Your task to perform on an android device: Open settings on Google Maps Image 0: 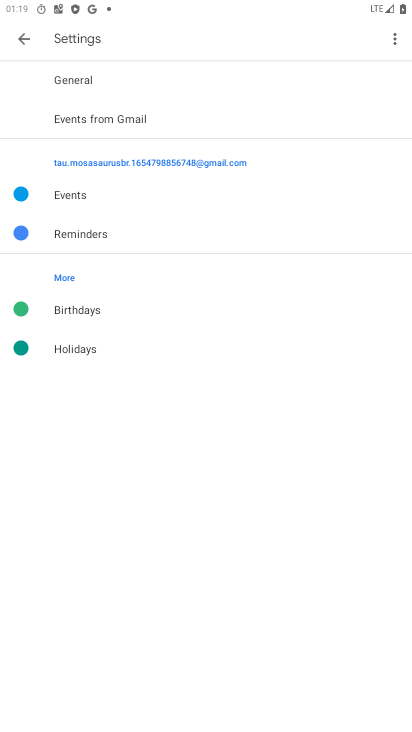
Step 0: press home button
Your task to perform on an android device: Open settings on Google Maps Image 1: 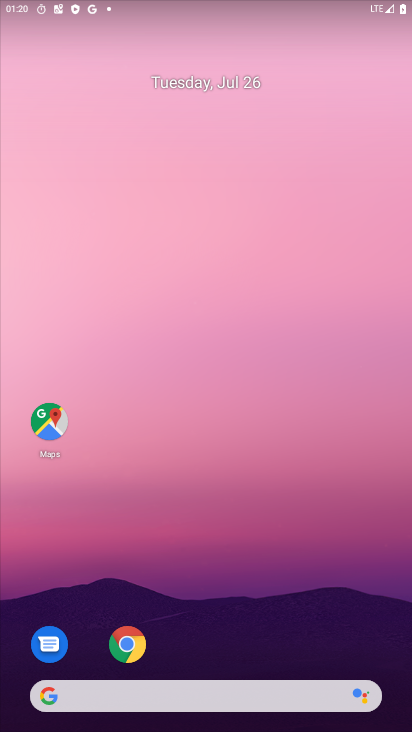
Step 1: click (39, 422)
Your task to perform on an android device: Open settings on Google Maps Image 2: 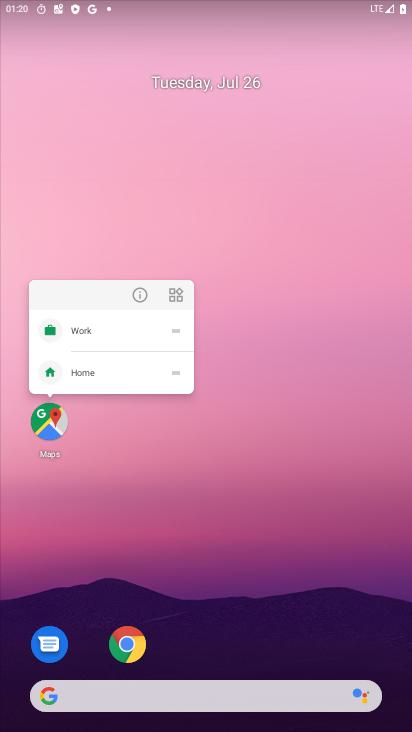
Step 2: click (39, 422)
Your task to perform on an android device: Open settings on Google Maps Image 3: 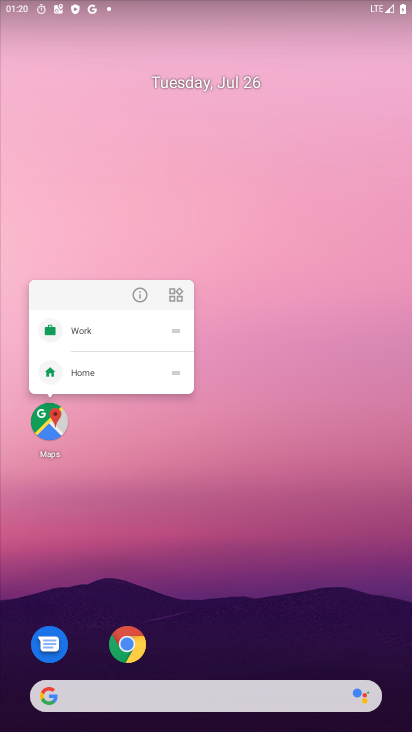
Step 3: click (45, 420)
Your task to perform on an android device: Open settings on Google Maps Image 4: 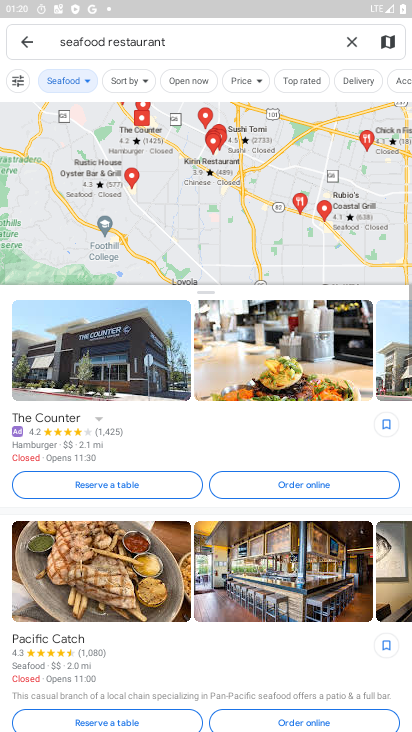
Step 4: click (355, 50)
Your task to perform on an android device: Open settings on Google Maps Image 5: 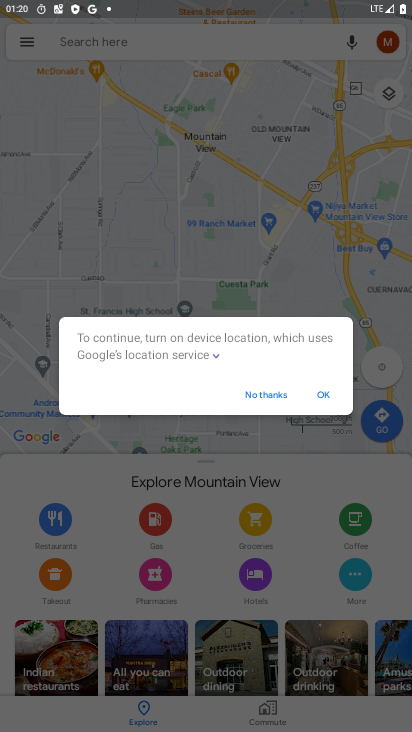
Step 5: click (261, 397)
Your task to perform on an android device: Open settings on Google Maps Image 6: 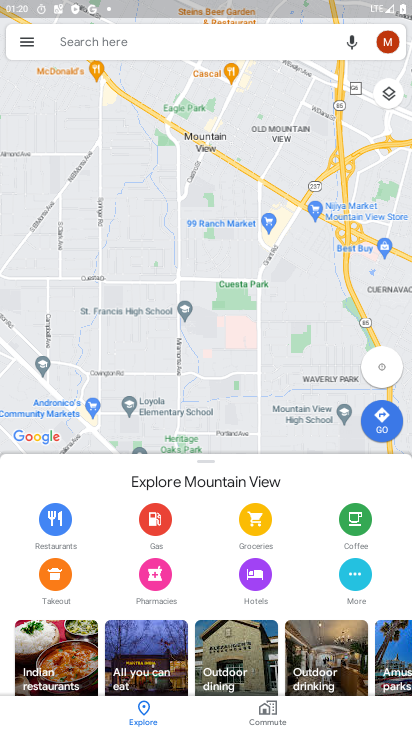
Step 6: click (25, 42)
Your task to perform on an android device: Open settings on Google Maps Image 7: 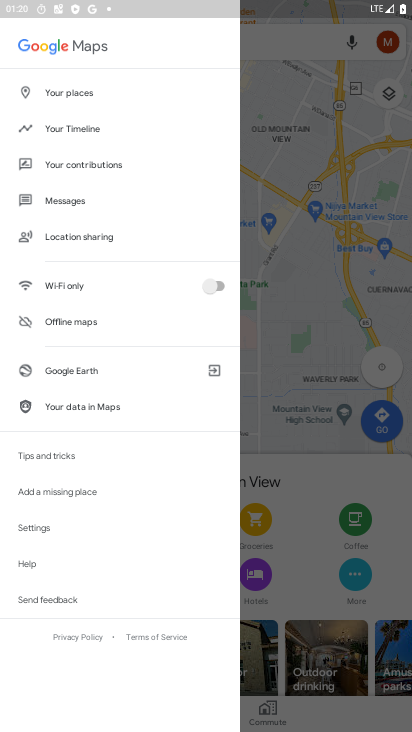
Step 7: click (35, 530)
Your task to perform on an android device: Open settings on Google Maps Image 8: 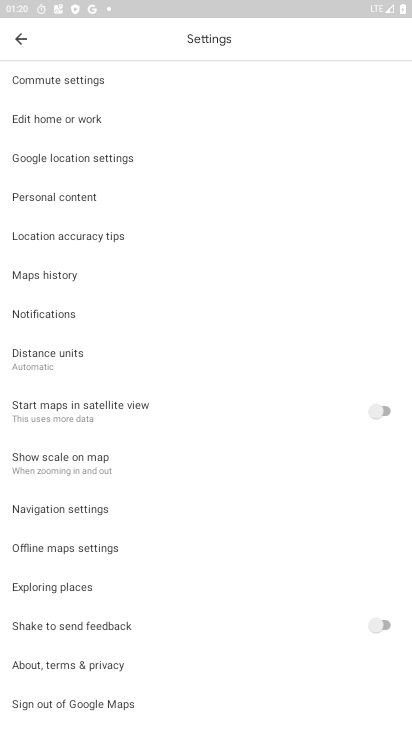
Step 8: task complete